Your task to perform on an android device: Search for "energizer triple a" on costco, select the first entry, add it to the cart, then select checkout. Image 0: 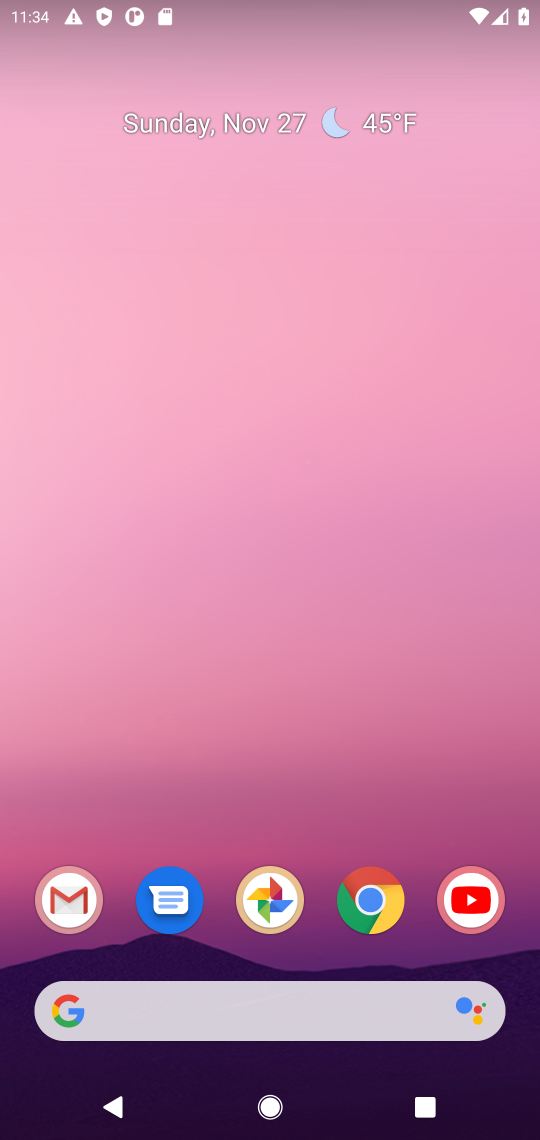
Step 0: click (372, 922)
Your task to perform on an android device: Search for "energizer triple a" on costco, select the first entry, add it to the cart, then select checkout. Image 1: 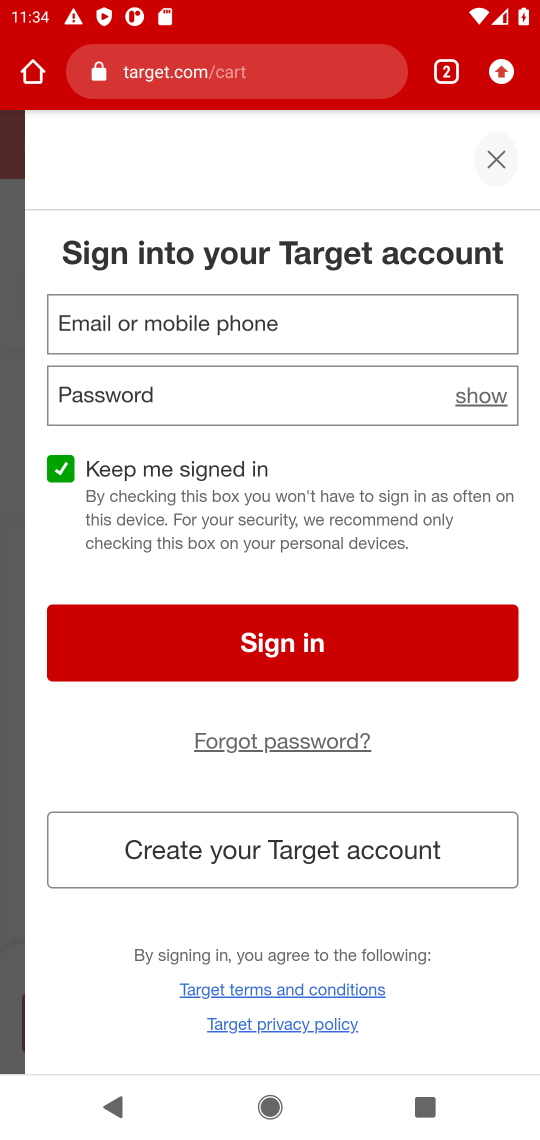
Step 1: click (173, 70)
Your task to perform on an android device: Search for "energizer triple a" on costco, select the first entry, add it to the cart, then select checkout. Image 2: 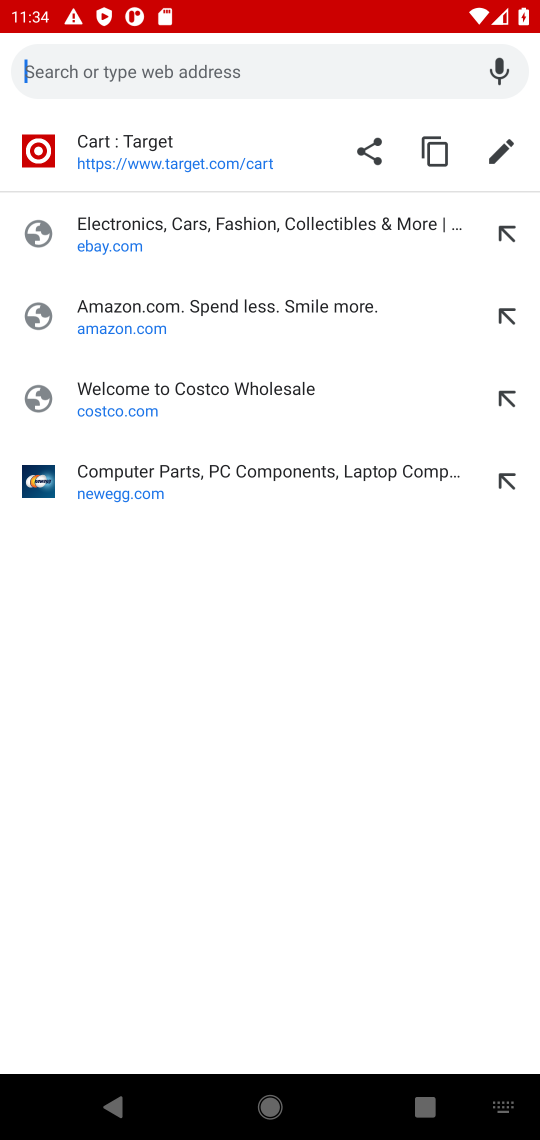
Step 2: click (115, 402)
Your task to perform on an android device: Search for "energizer triple a" on costco, select the first entry, add it to the cart, then select checkout. Image 3: 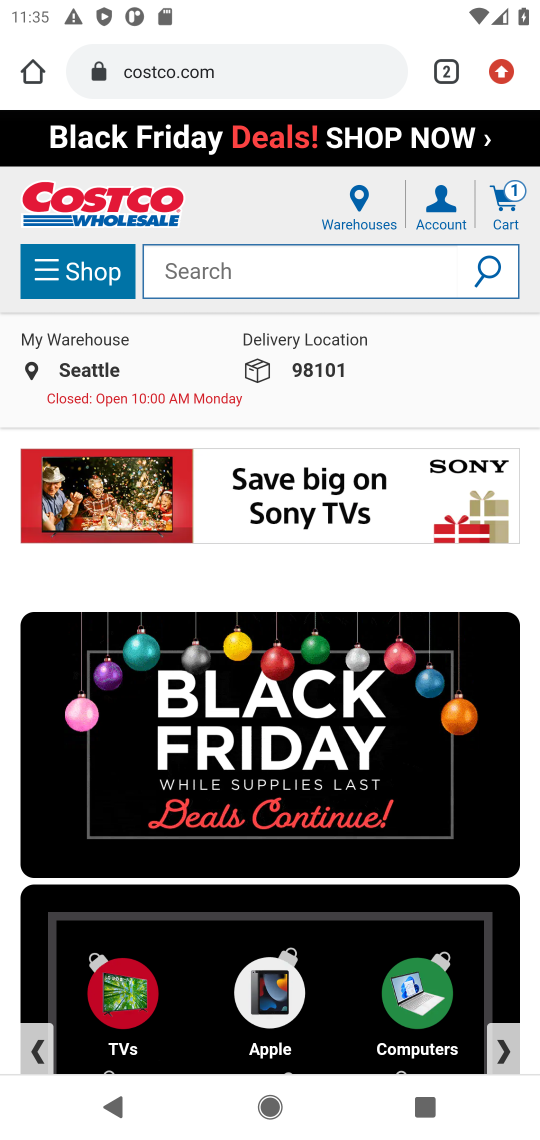
Step 3: click (245, 261)
Your task to perform on an android device: Search for "energizer triple a" on costco, select the first entry, add it to the cart, then select checkout. Image 4: 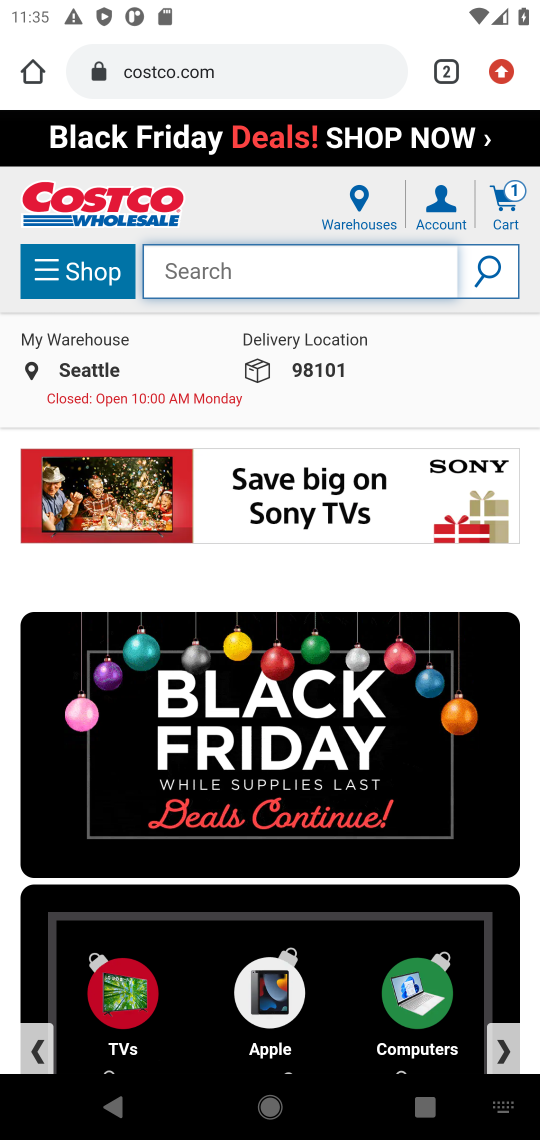
Step 4: type "energizer triple a"
Your task to perform on an android device: Search for "energizer triple a" on costco, select the first entry, add it to the cart, then select checkout. Image 5: 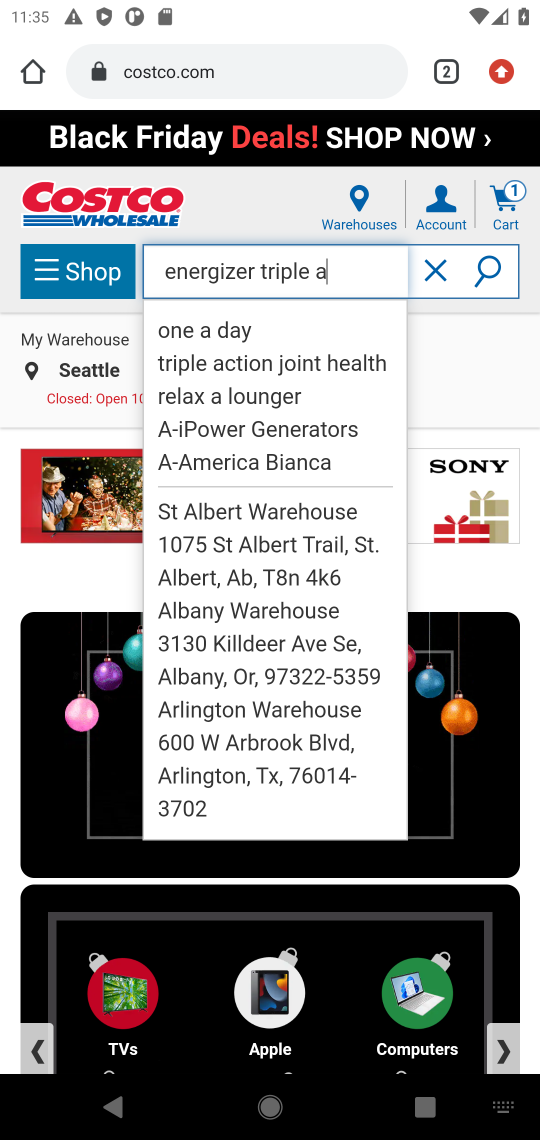
Step 5: click (498, 278)
Your task to perform on an android device: Search for "energizer triple a" on costco, select the first entry, add it to the cart, then select checkout. Image 6: 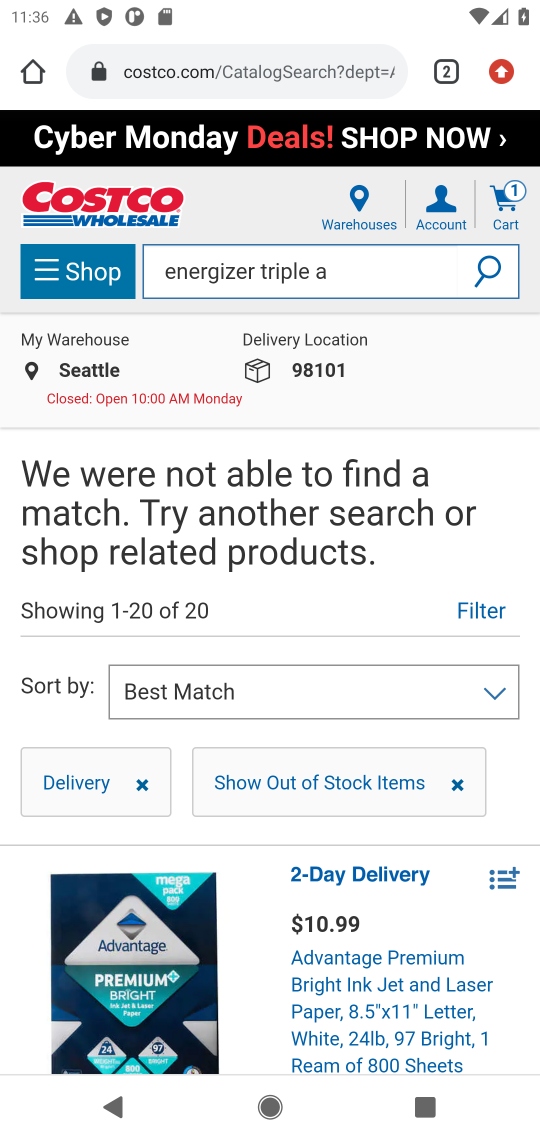
Step 6: task complete